Your task to perform on an android device: add a contact Image 0: 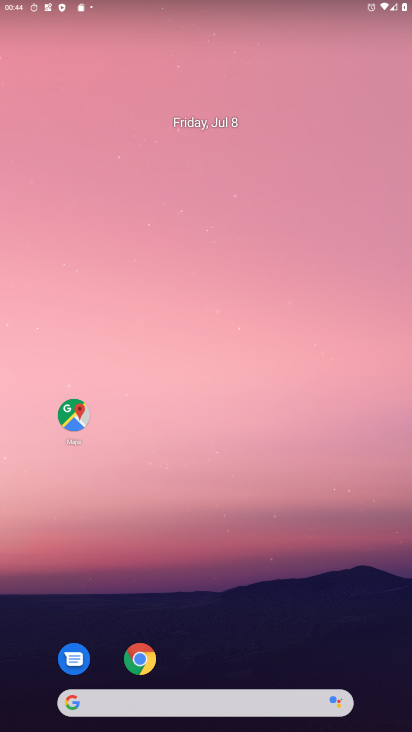
Step 0: drag from (220, 665) to (260, 132)
Your task to perform on an android device: add a contact Image 1: 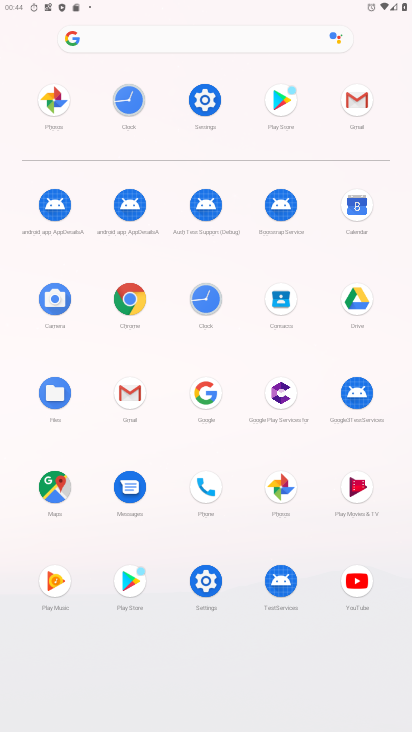
Step 1: click (283, 312)
Your task to perform on an android device: add a contact Image 2: 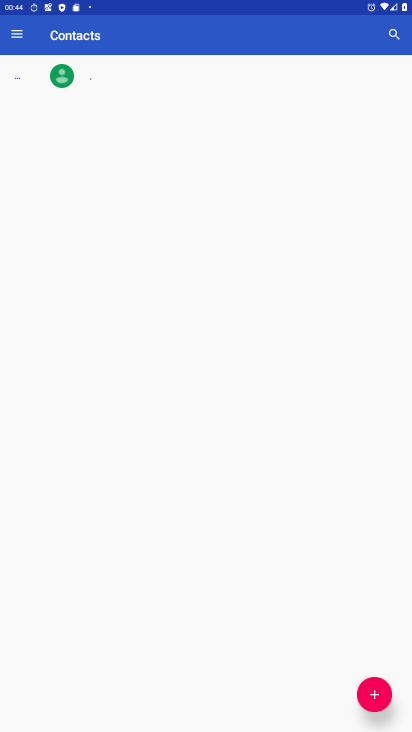
Step 2: click (380, 694)
Your task to perform on an android device: add a contact Image 3: 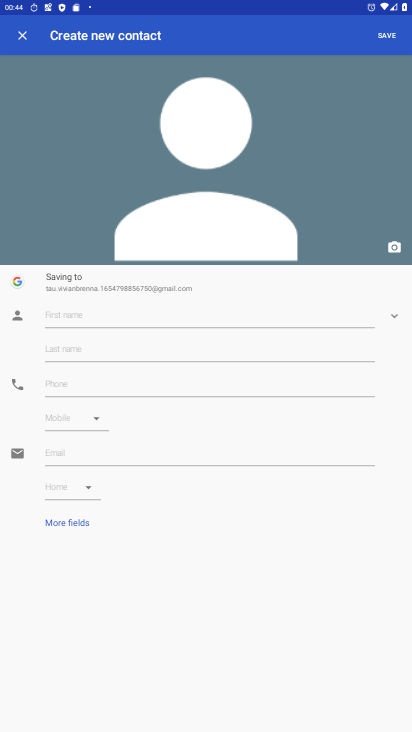
Step 3: click (145, 318)
Your task to perform on an android device: add a contact Image 4: 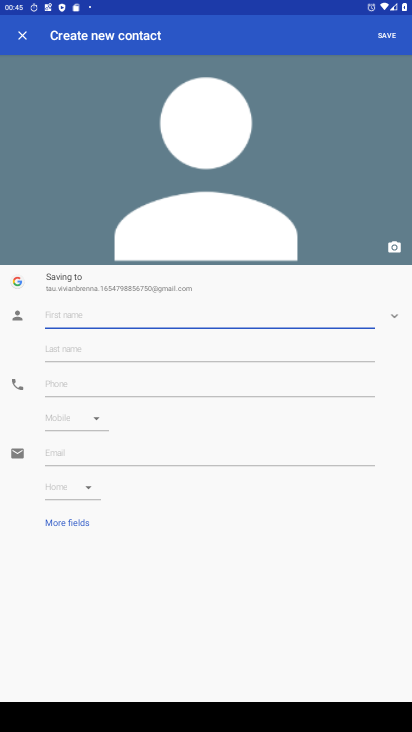
Step 4: type ",,"
Your task to perform on an android device: add a contact Image 5: 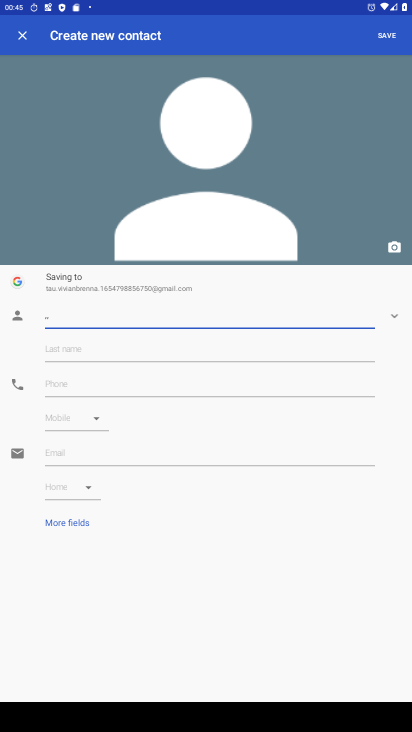
Step 5: click (192, 380)
Your task to perform on an android device: add a contact Image 6: 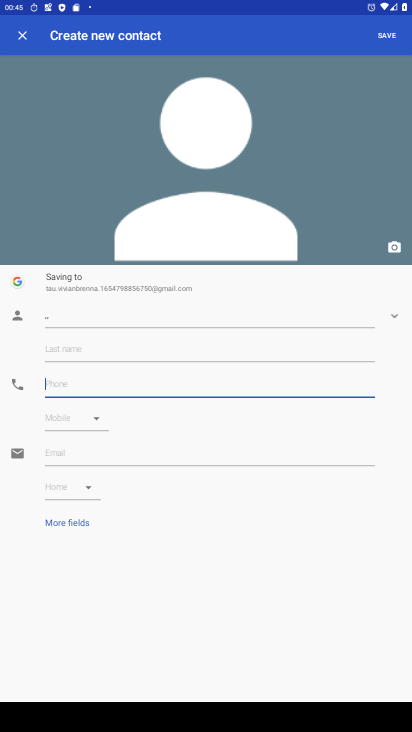
Step 6: type "98765434567"
Your task to perform on an android device: add a contact Image 7: 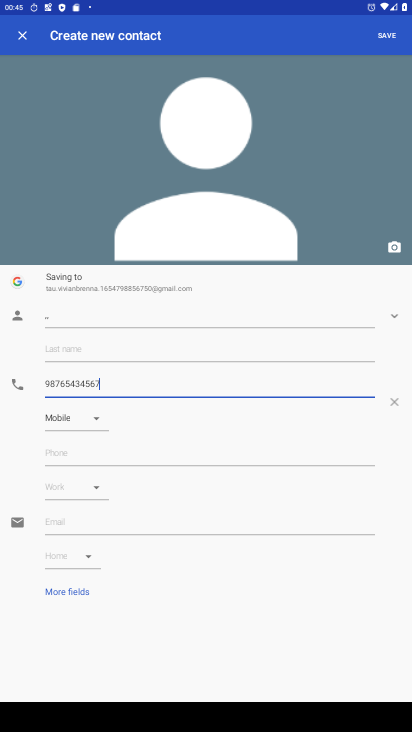
Step 7: click (385, 31)
Your task to perform on an android device: add a contact Image 8: 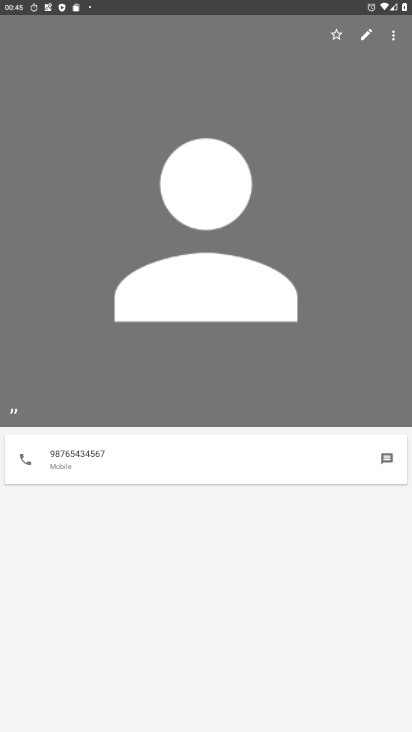
Step 8: task complete